Your task to perform on an android device: Open Youtube and go to the subscriptions tab Image 0: 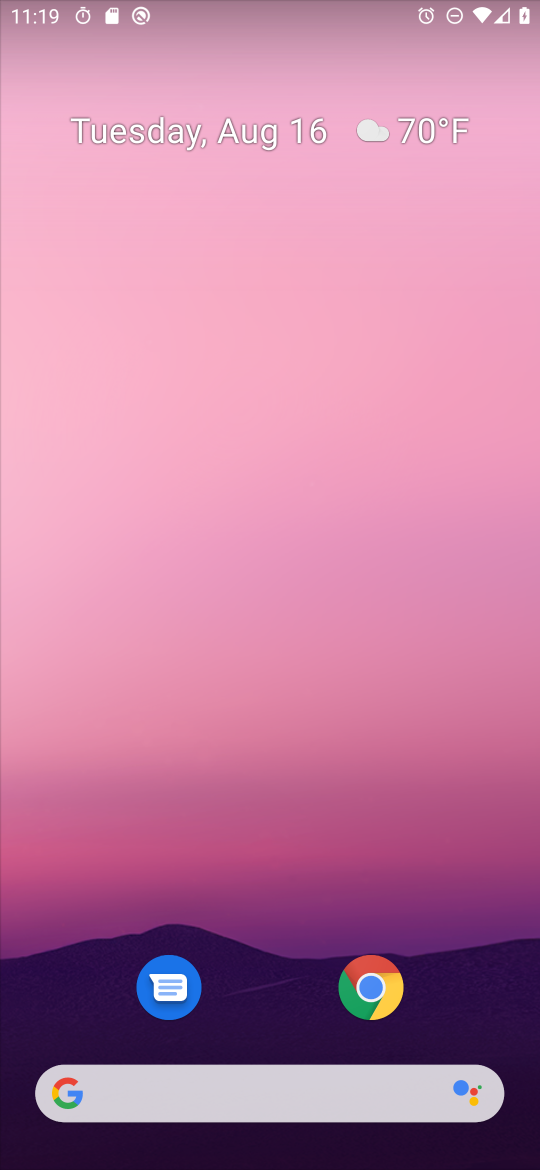
Step 0: drag from (12, 1132) to (293, 206)
Your task to perform on an android device: Open Youtube and go to the subscriptions tab Image 1: 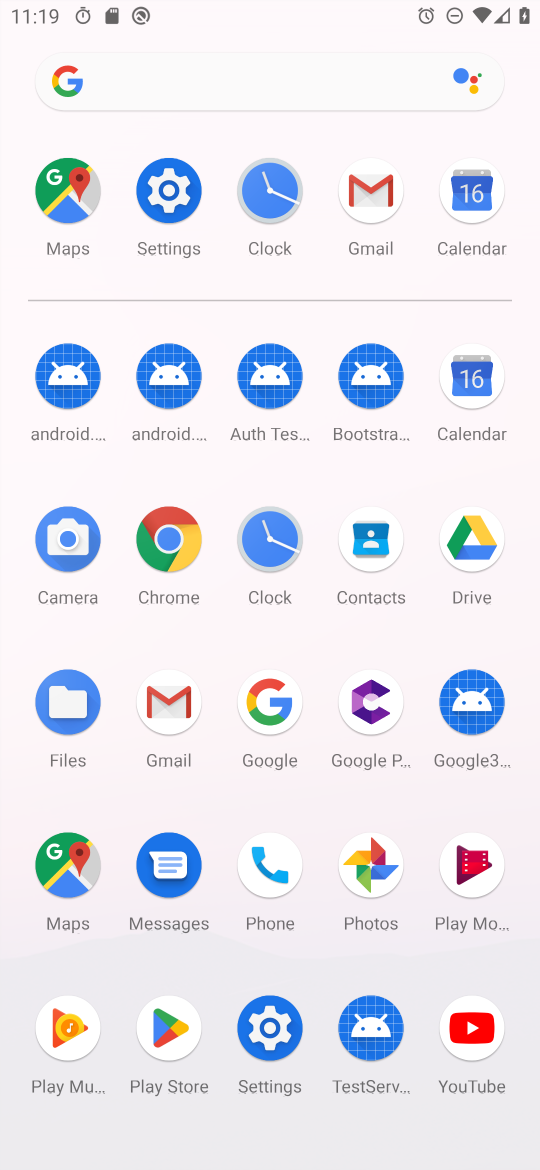
Step 1: click (470, 1030)
Your task to perform on an android device: Open Youtube and go to the subscriptions tab Image 2: 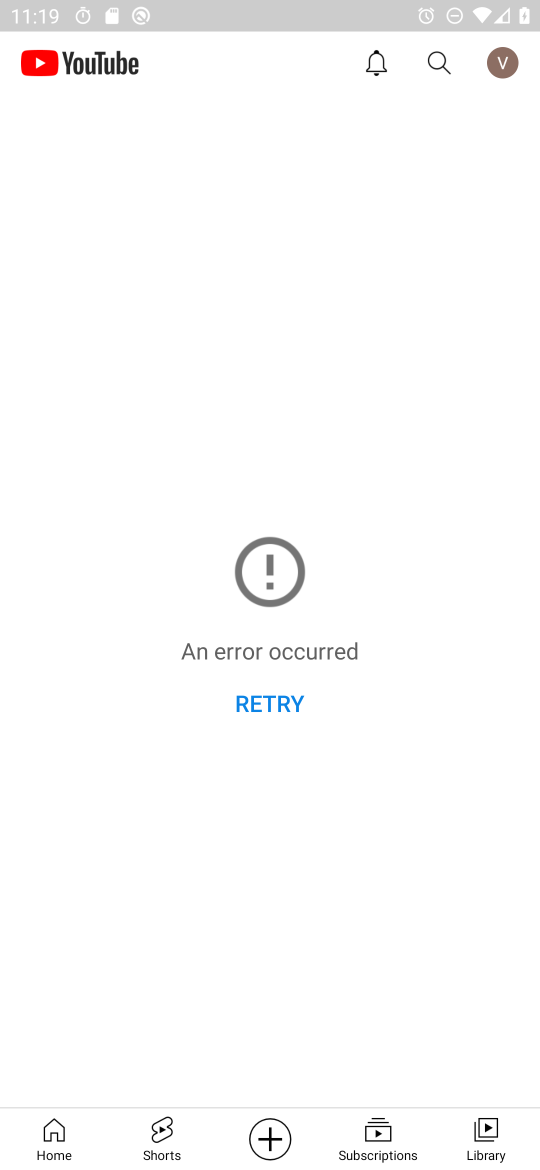
Step 2: click (377, 1129)
Your task to perform on an android device: Open Youtube and go to the subscriptions tab Image 3: 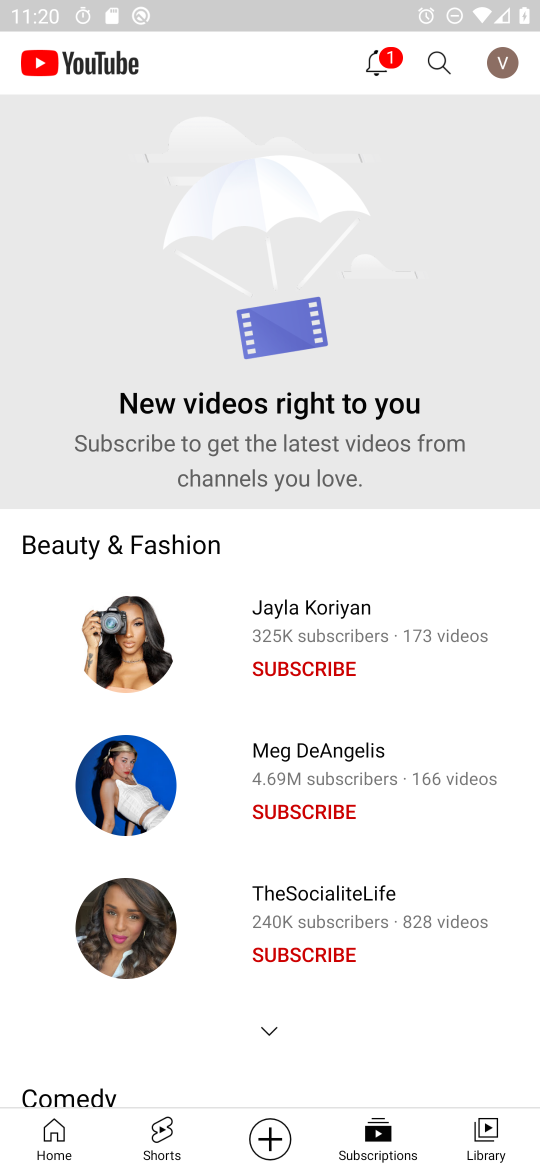
Step 3: task complete